Your task to perform on an android device: turn notification dots on Image 0: 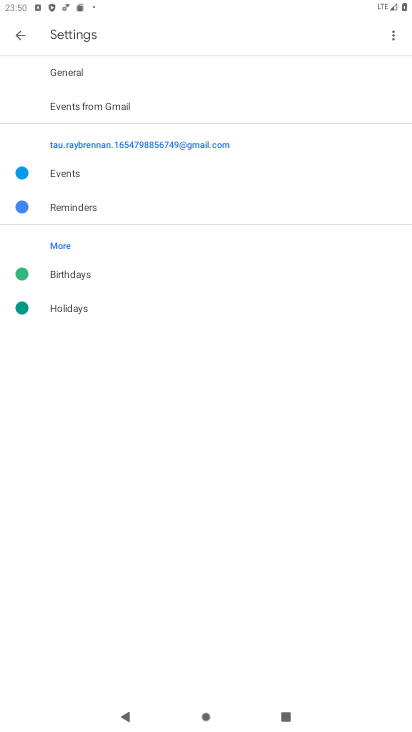
Step 0: press home button
Your task to perform on an android device: turn notification dots on Image 1: 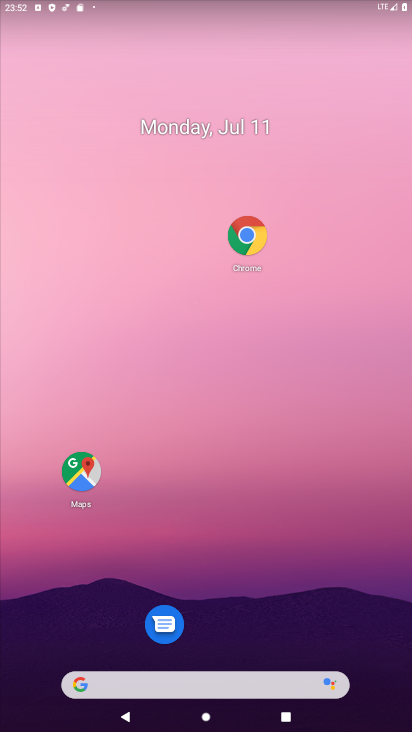
Step 1: drag from (210, 627) to (194, 120)
Your task to perform on an android device: turn notification dots on Image 2: 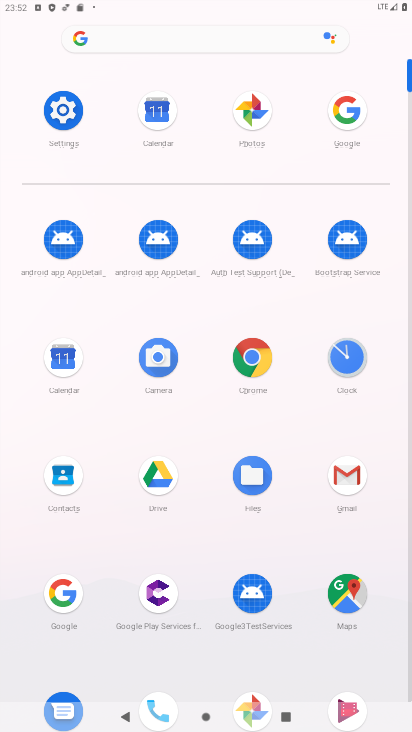
Step 2: click (60, 99)
Your task to perform on an android device: turn notification dots on Image 3: 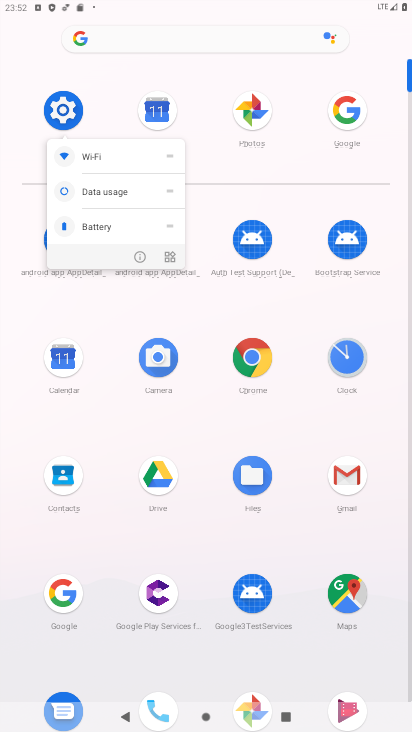
Step 3: click (65, 99)
Your task to perform on an android device: turn notification dots on Image 4: 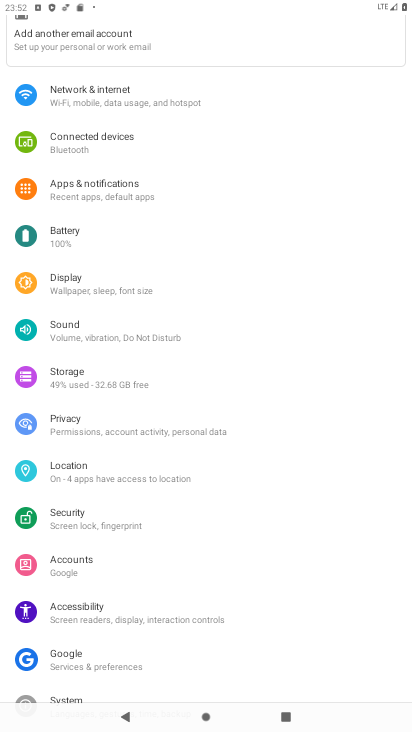
Step 4: click (154, 203)
Your task to perform on an android device: turn notification dots on Image 5: 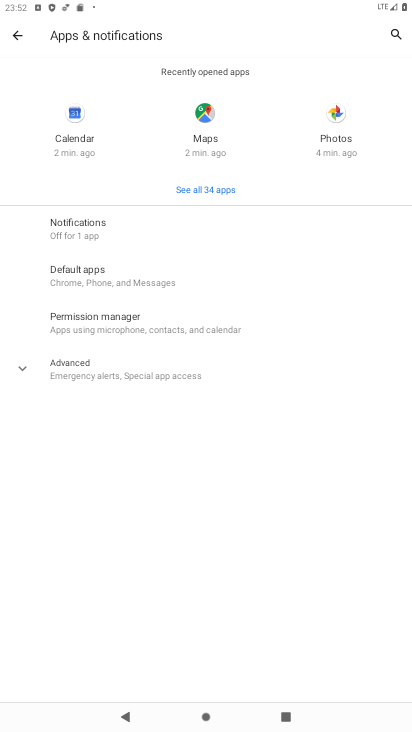
Step 5: click (103, 239)
Your task to perform on an android device: turn notification dots on Image 6: 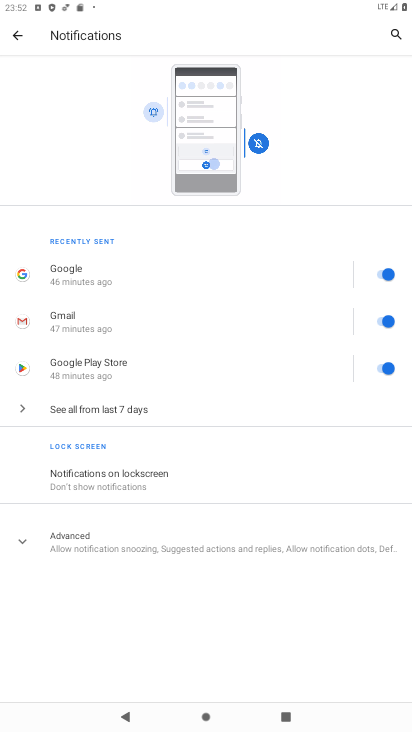
Step 6: click (162, 547)
Your task to perform on an android device: turn notification dots on Image 7: 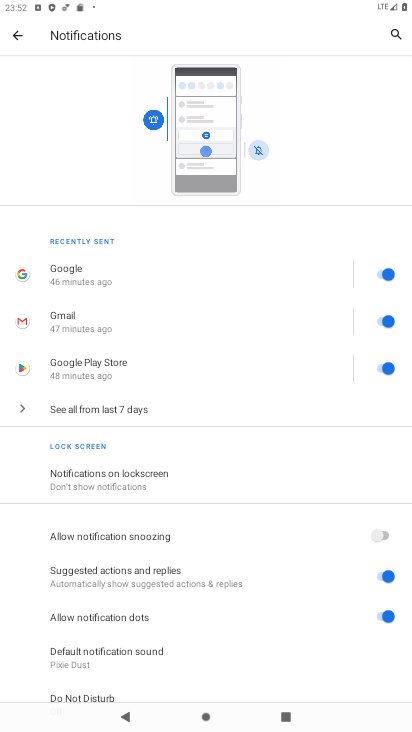
Step 7: task complete